Your task to perform on an android device: What's the weather? Image 0: 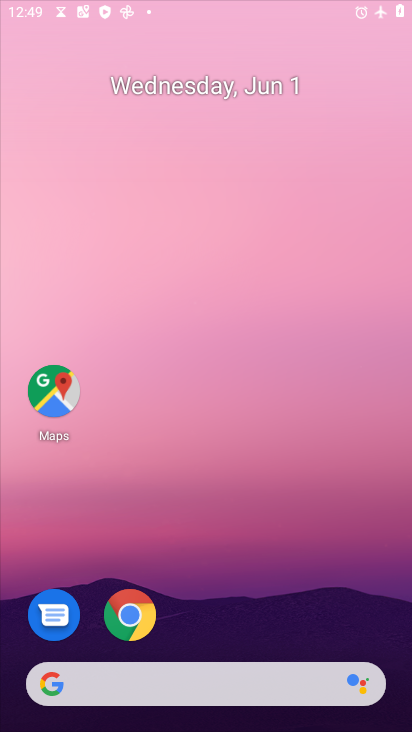
Step 0: click (250, 7)
Your task to perform on an android device: What's the weather? Image 1: 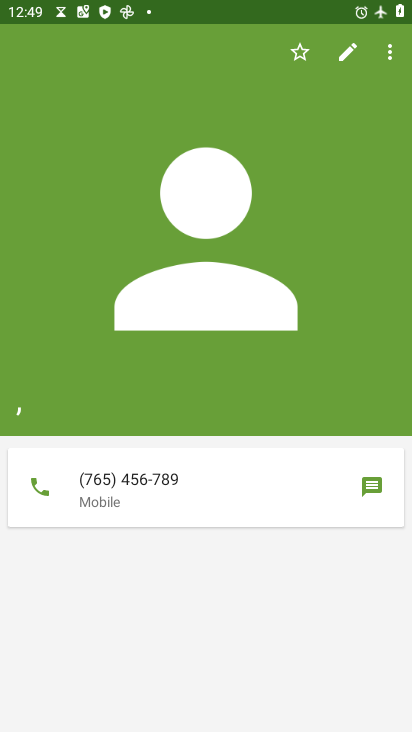
Step 1: press home button
Your task to perform on an android device: What's the weather? Image 2: 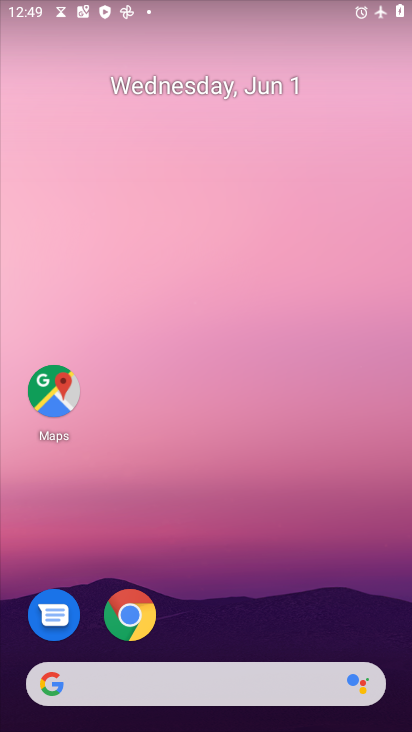
Step 2: drag from (292, 533) to (85, 6)
Your task to perform on an android device: What's the weather? Image 3: 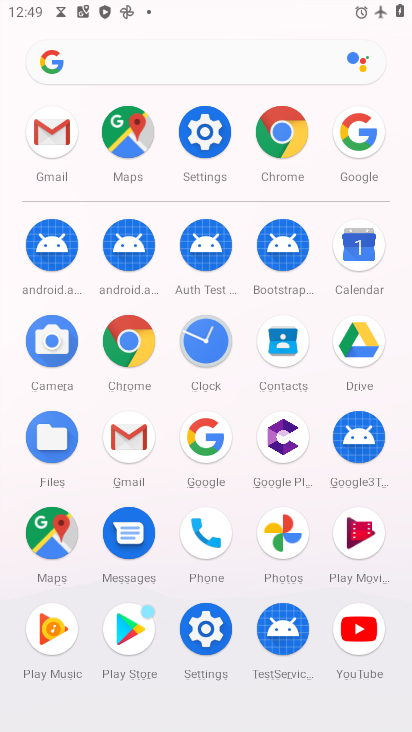
Step 3: click (194, 145)
Your task to perform on an android device: What's the weather? Image 4: 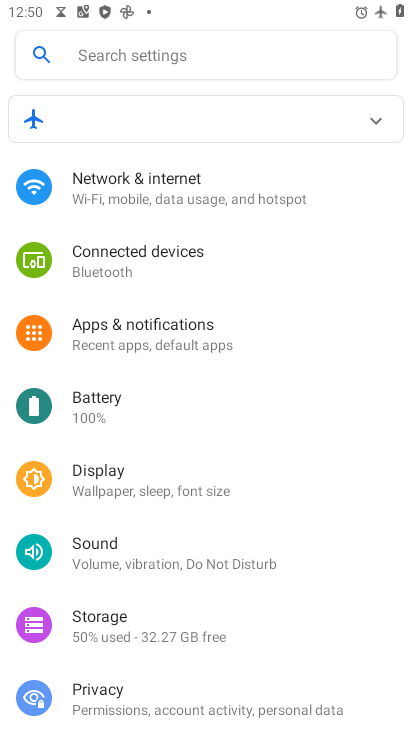
Step 4: click (154, 179)
Your task to perform on an android device: What's the weather? Image 5: 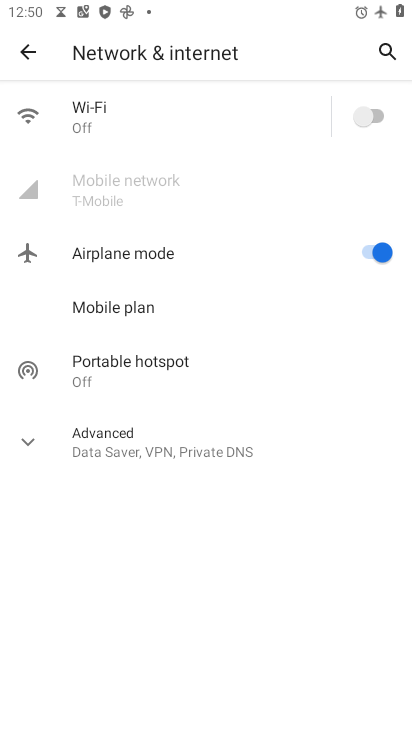
Step 5: click (367, 250)
Your task to perform on an android device: What's the weather? Image 6: 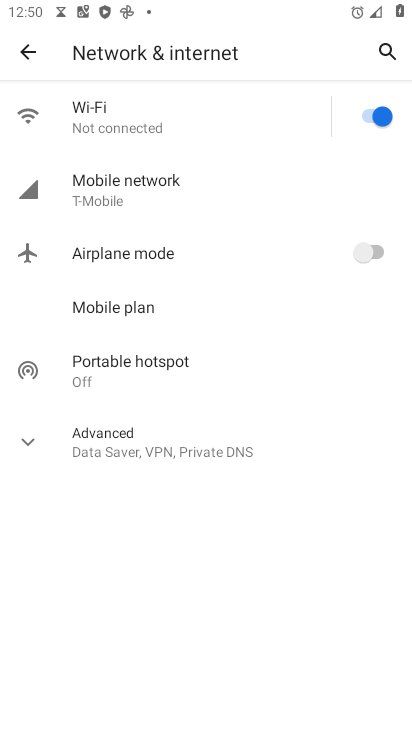
Step 6: click (367, 121)
Your task to perform on an android device: What's the weather? Image 7: 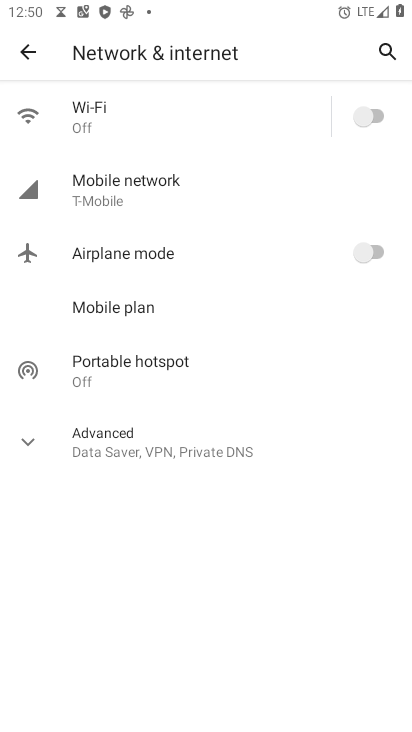
Step 7: task complete